Your task to perform on an android device: check storage Image 0: 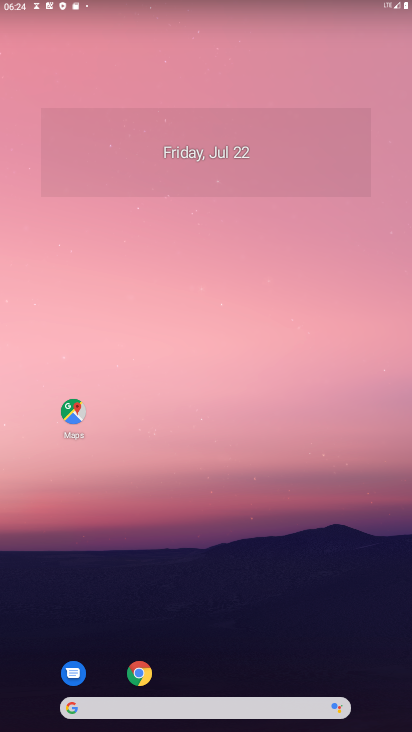
Step 0: press home button
Your task to perform on an android device: check storage Image 1: 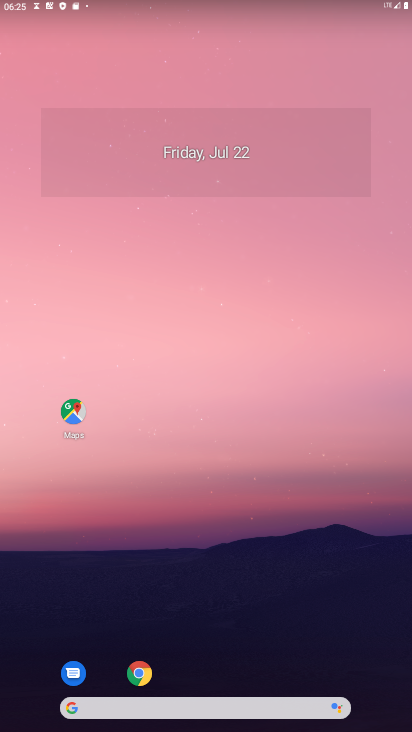
Step 1: drag from (236, 599) to (261, 2)
Your task to perform on an android device: check storage Image 2: 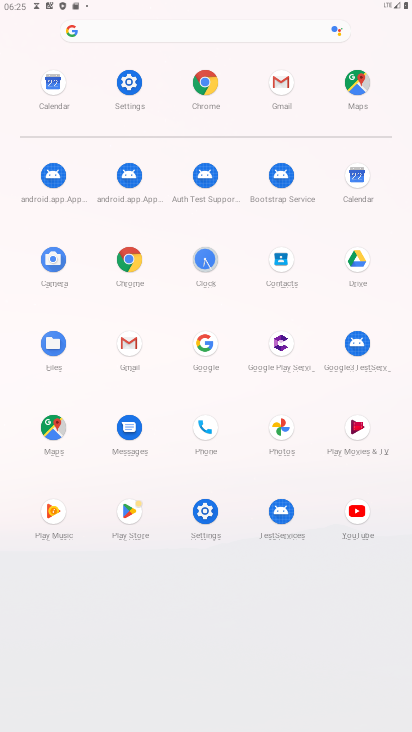
Step 2: click (137, 97)
Your task to perform on an android device: check storage Image 3: 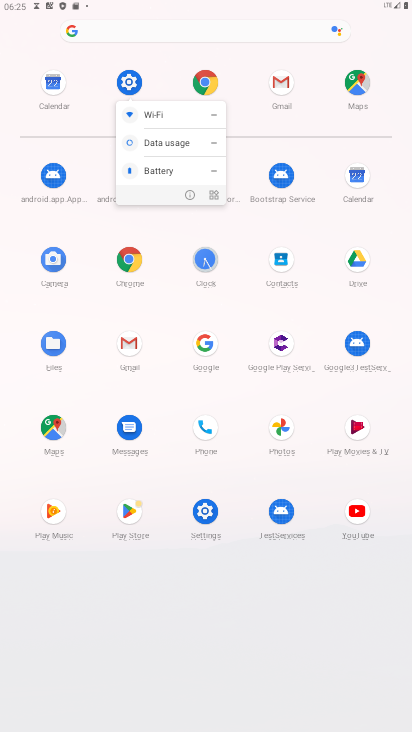
Step 3: click (126, 85)
Your task to perform on an android device: check storage Image 4: 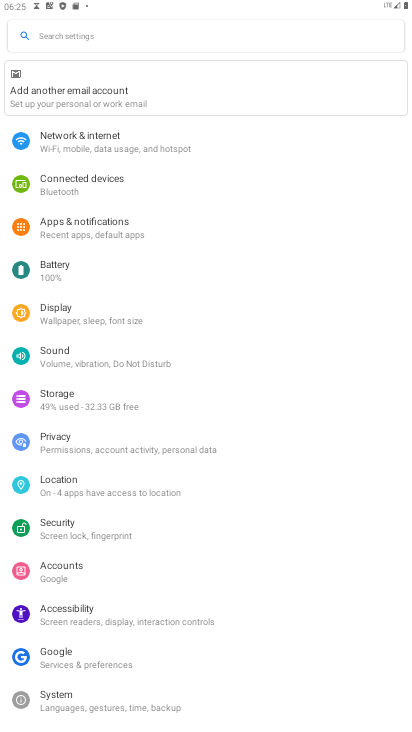
Step 4: click (52, 403)
Your task to perform on an android device: check storage Image 5: 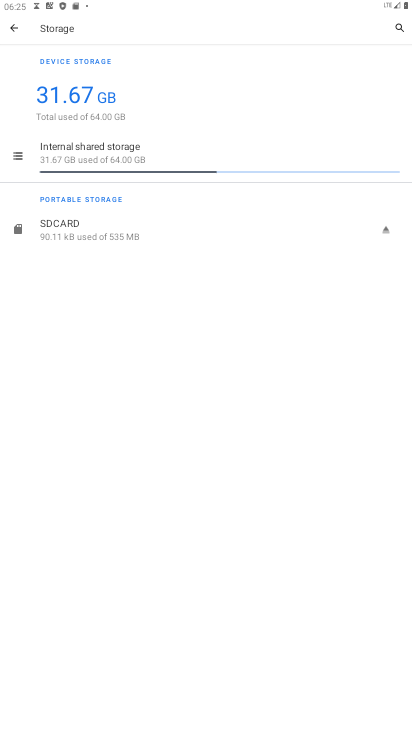
Step 5: task complete